Your task to perform on an android device: Open Yahoo.com Image 0: 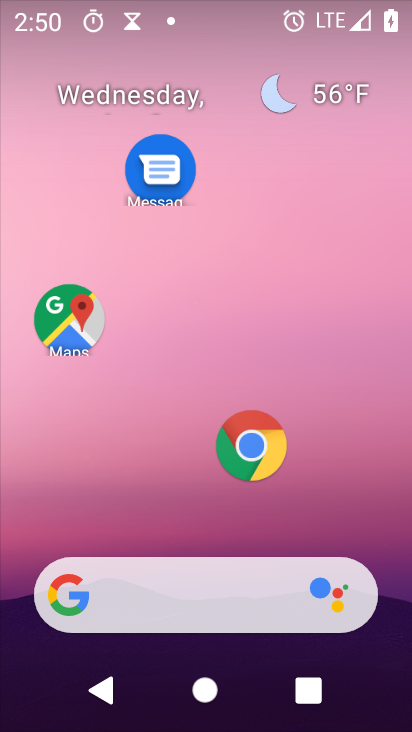
Step 0: drag from (167, 519) to (281, 108)
Your task to perform on an android device: Open Yahoo.com Image 1: 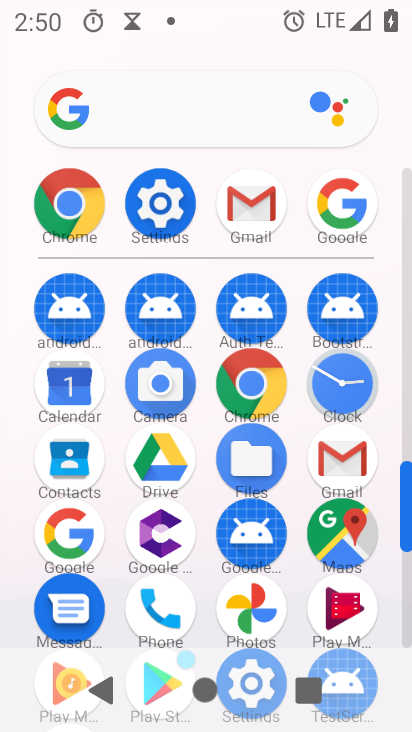
Step 1: drag from (216, 270) to (195, 68)
Your task to perform on an android device: Open Yahoo.com Image 2: 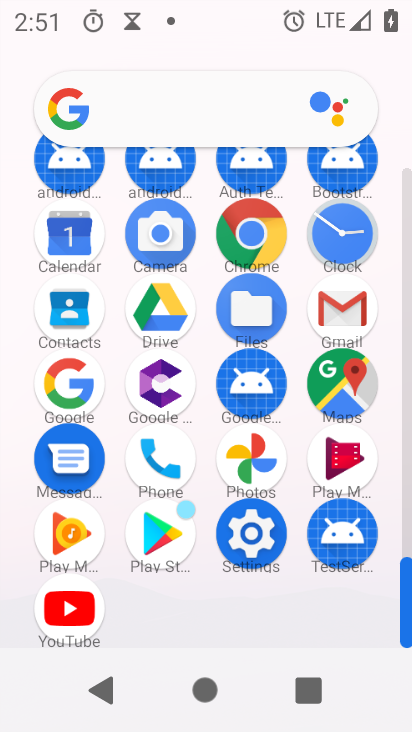
Step 2: click (256, 247)
Your task to perform on an android device: Open Yahoo.com Image 3: 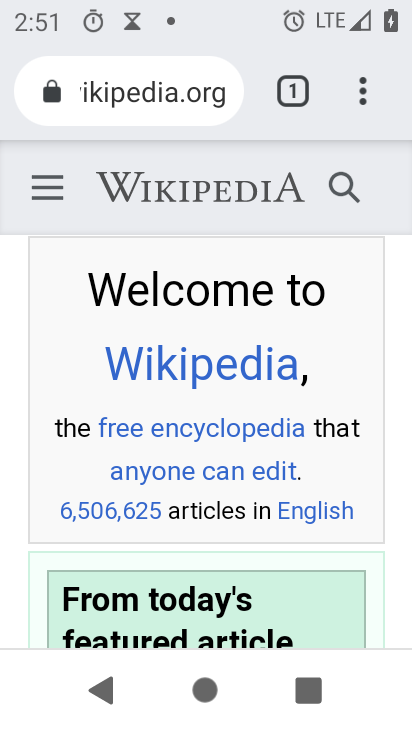
Step 3: click (291, 97)
Your task to perform on an android device: Open Yahoo.com Image 4: 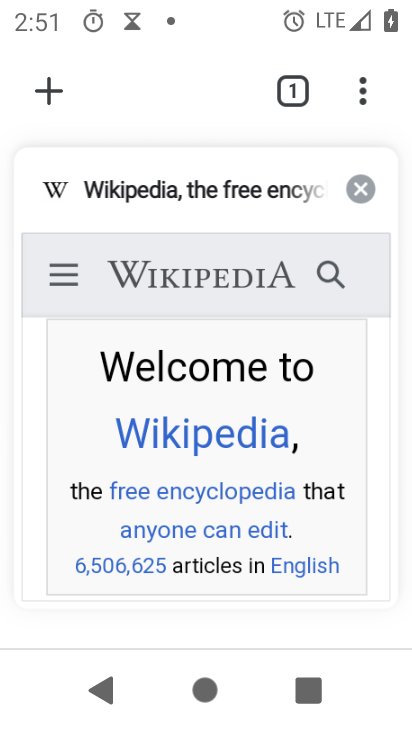
Step 4: click (39, 103)
Your task to perform on an android device: Open Yahoo.com Image 5: 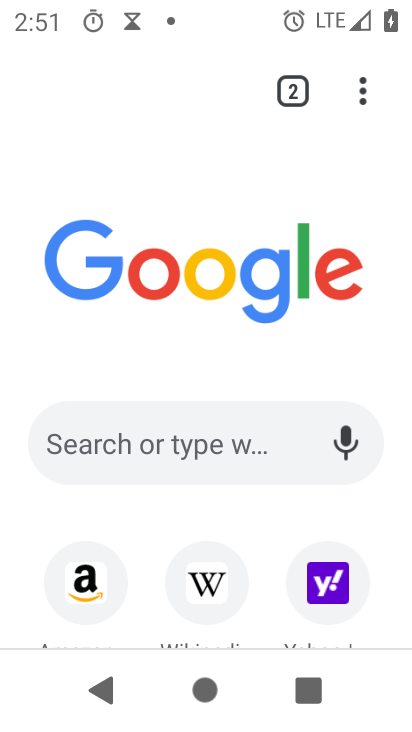
Step 5: drag from (250, 516) to (244, 281)
Your task to perform on an android device: Open Yahoo.com Image 6: 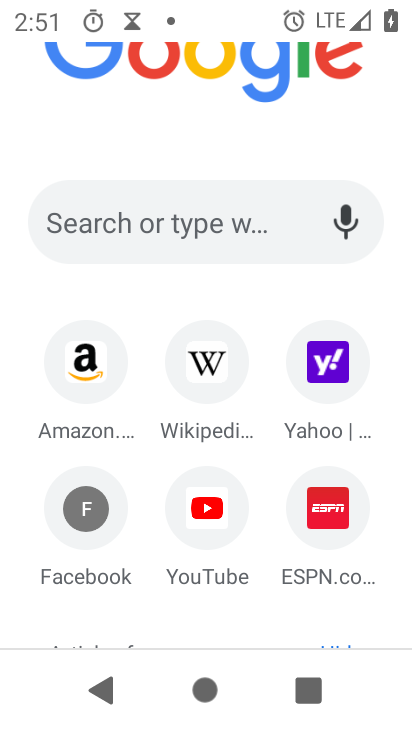
Step 6: click (321, 380)
Your task to perform on an android device: Open Yahoo.com Image 7: 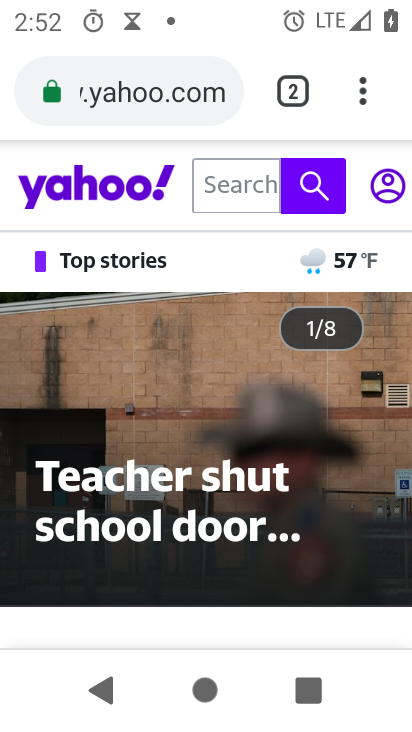
Step 7: task complete